Your task to perform on an android device: Open Google Chrome Image 0: 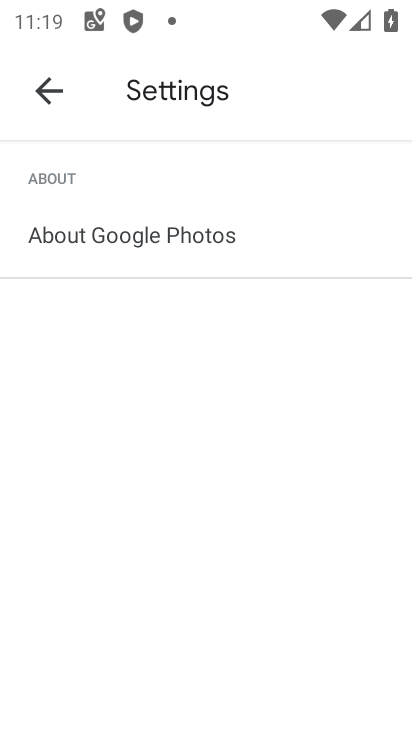
Step 0: click (27, 94)
Your task to perform on an android device: Open Google Chrome Image 1: 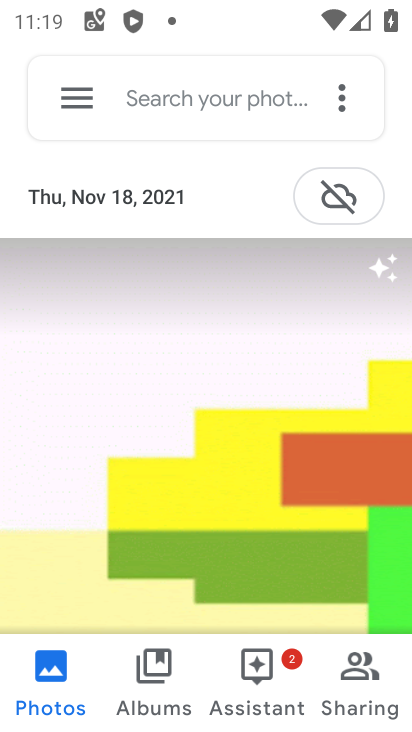
Step 1: press home button
Your task to perform on an android device: Open Google Chrome Image 2: 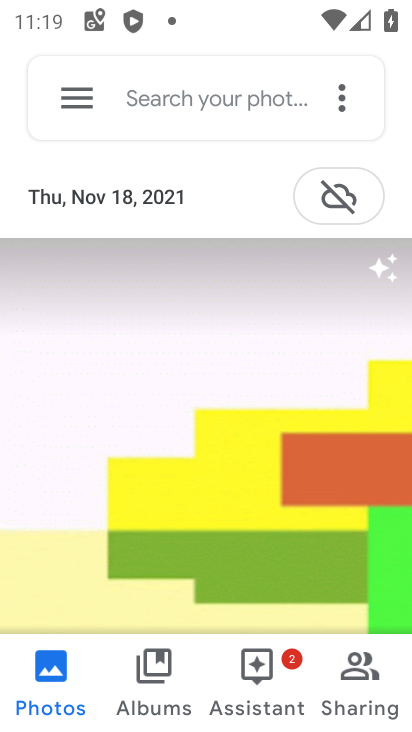
Step 2: press home button
Your task to perform on an android device: Open Google Chrome Image 3: 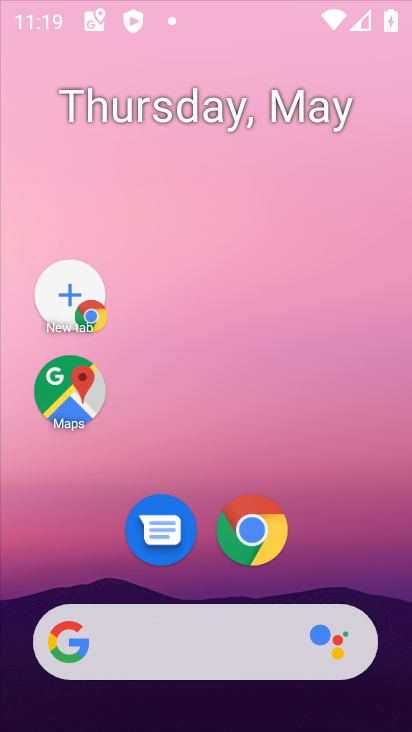
Step 3: press home button
Your task to perform on an android device: Open Google Chrome Image 4: 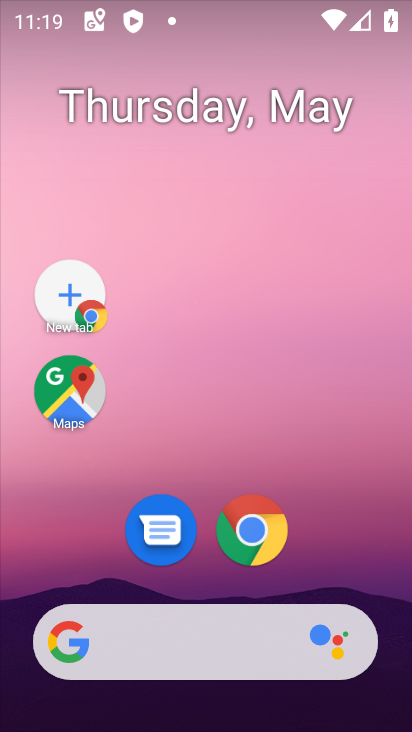
Step 4: drag from (350, 589) to (182, 67)
Your task to perform on an android device: Open Google Chrome Image 5: 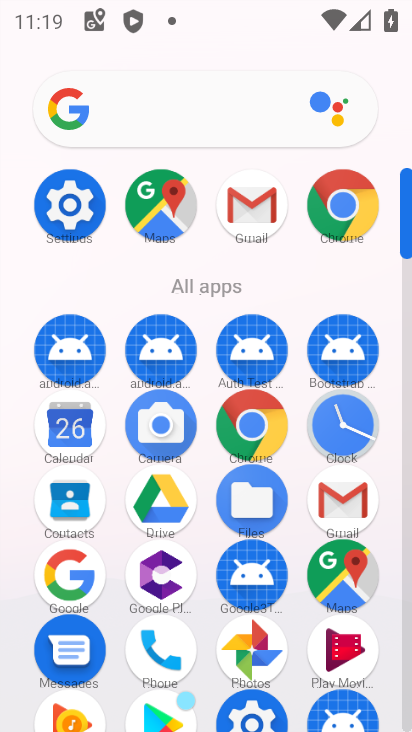
Step 5: click (360, 211)
Your task to perform on an android device: Open Google Chrome Image 6: 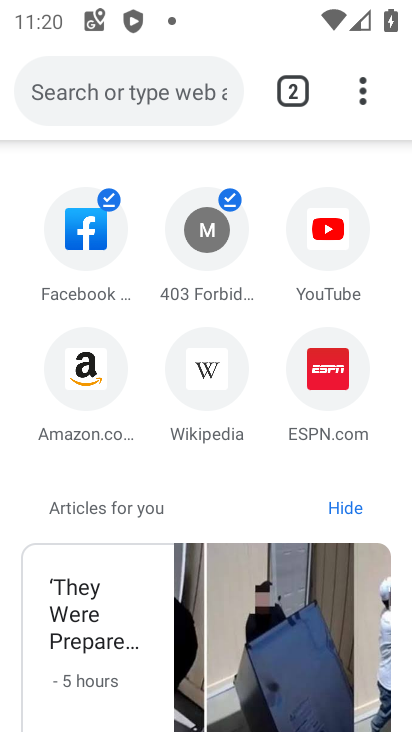
Step 6: task complete